Your task to perform on an android device: Open Yahoo.com Image 0: 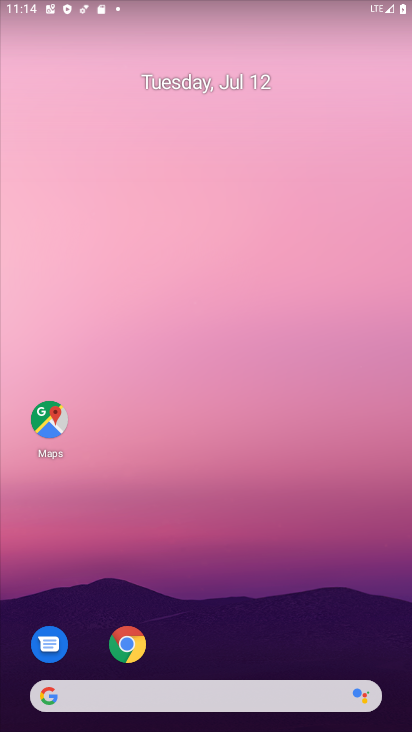
Step 0: click (202, 703)
Your task to perform on an android device: Open Yahoo.com Image 1: 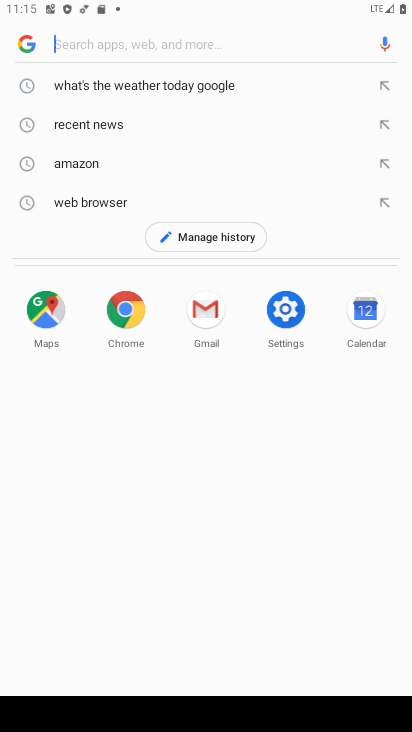
Step 1: click (229, 40)
Your task to perform on an android device: Open Yahoo.com Image 2: 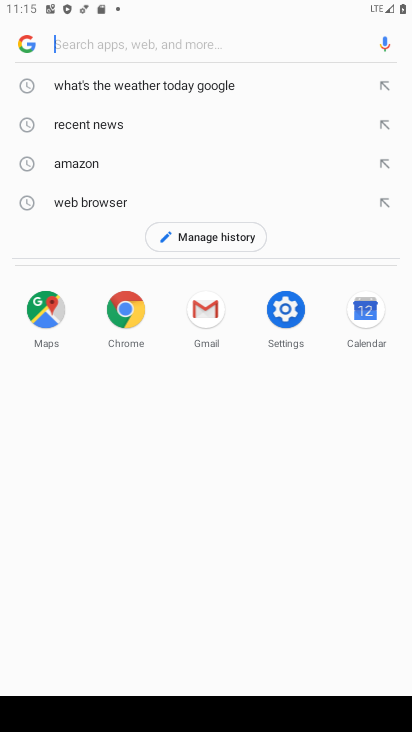
Step 2: type "yahoo.com"
Your task to perform on an android device: Open Yahoo.com Image 3: 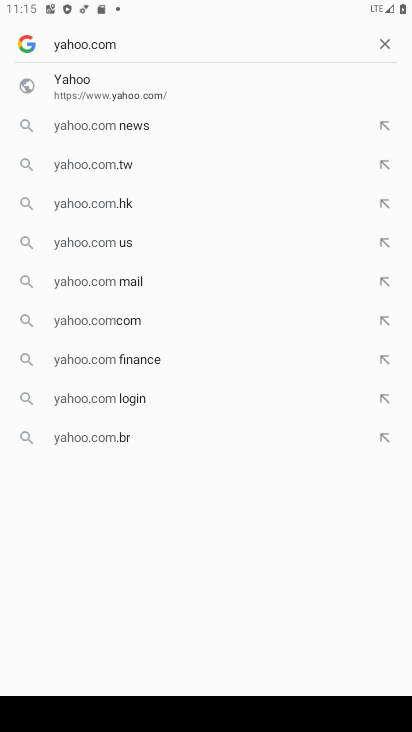
Step 3: click (125, 80)
Your task to perform on an android device: Open Yahoo.com Image 4: 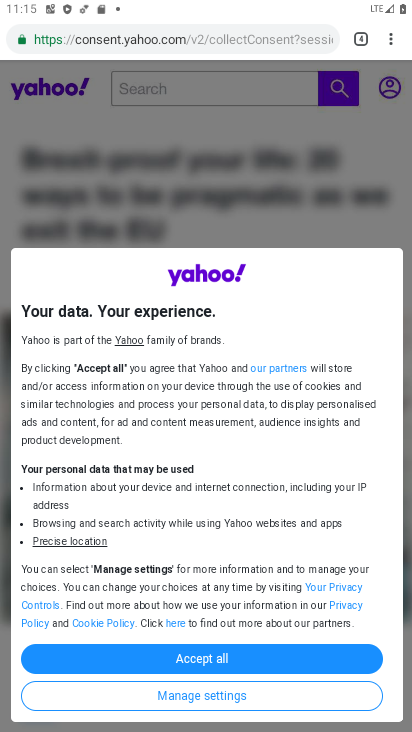
Step 4: task complete